Your task to perform on an android device: Check the news Image 0: 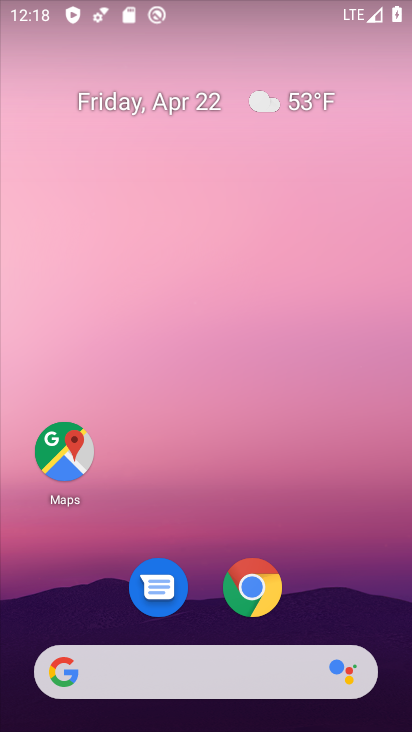
Step 0: click (261, 53)
Your task to perform on an android device: Check the news Image 1: 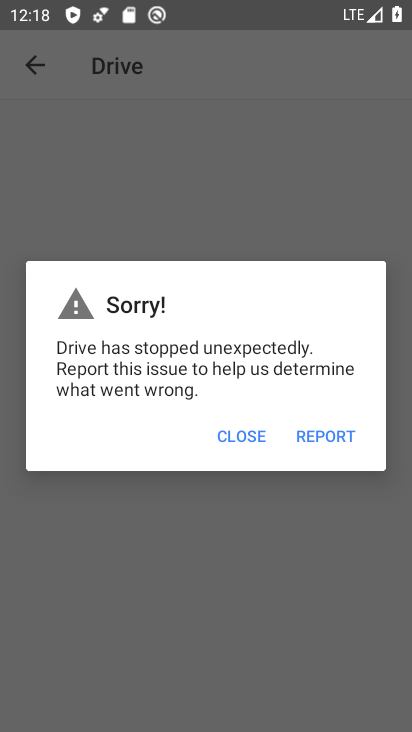
Step 1: click (234, 441)
Your task to perform on an android device: Check the news Image 2: 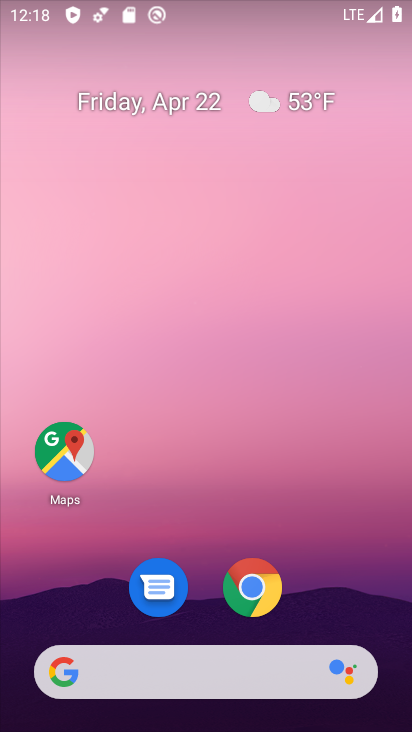
Step 2: drag from (124, 546) to (221, 150)
Your task to perform on an android device: Check the news Image 3: 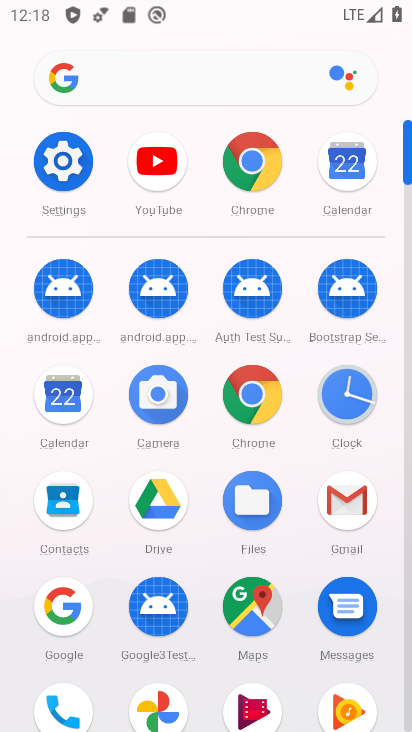
Step 3: click (154, 67)
Your task to perform on an android device: Check the news Image 4: 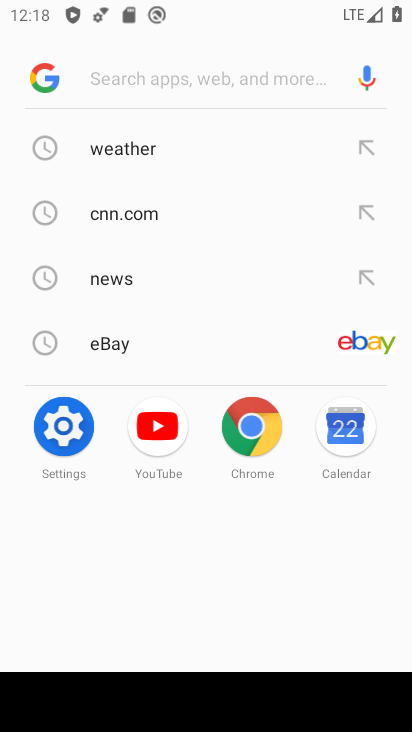
Step 4: click (182, 274)
Your task to perform on an android device: Check the news Image 5: 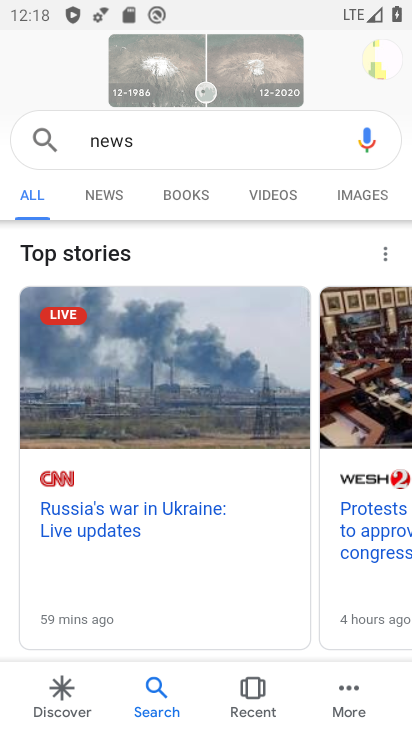
Step 5: task complete